Your task to perform on an android device: turn off airplane mode Image 0: 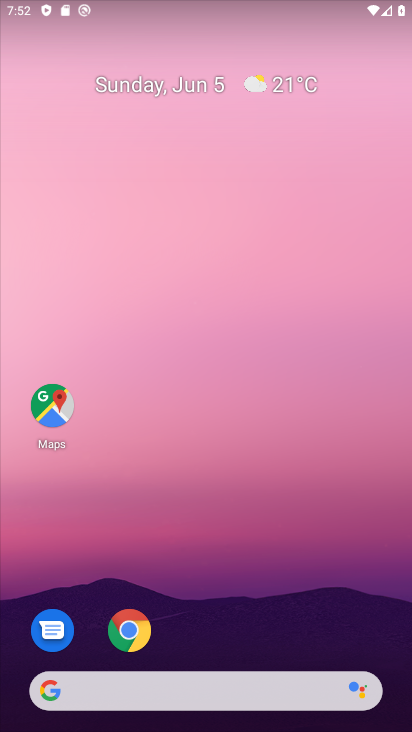
Step 0: drag from (212, 486) to (202, 206)
Your task to perform on an android device: turn off airplane mode Image 1: 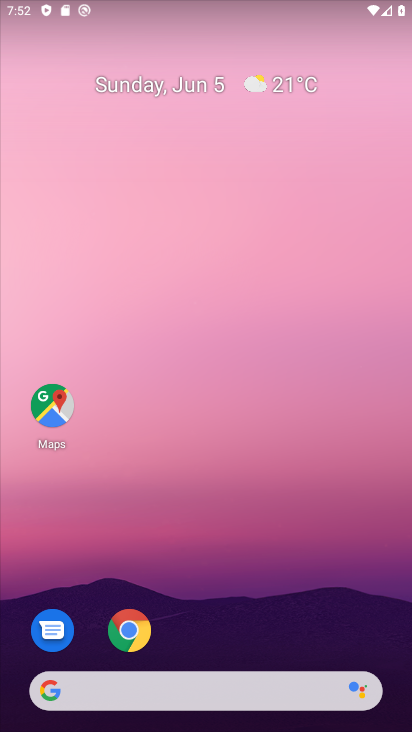
Step 1: drag from (236, 623) to (269, 88)
Your task to perform on an android device: turn off airplane mode Image 2: 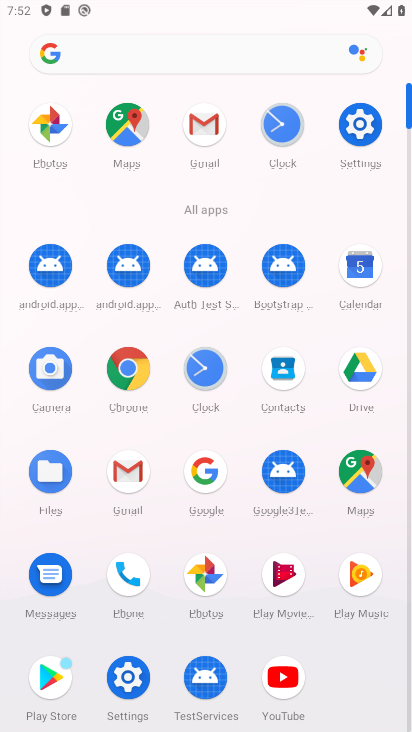
Step 2: click (365, 124)
Your task to perform on an android device: turn off airplane mode Image 3: 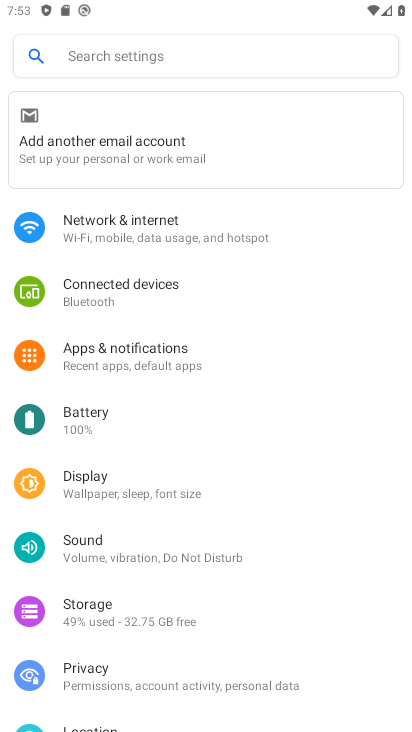
Step 3: click (136, 229)
Your task to perform on an android device: turn off airplane mode Image 4: 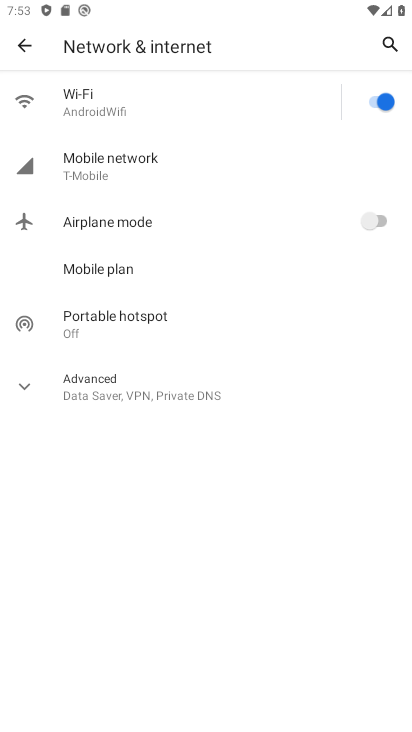
Step 4: task complete